Your task to perform on an android device: Show me popular videos on Youtube Image 0: 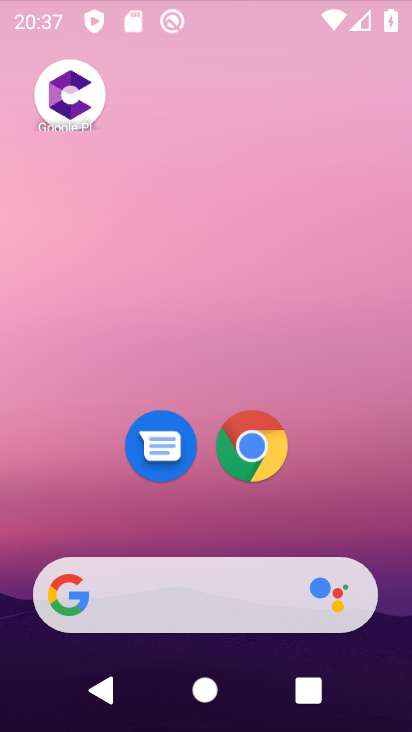
Step 0: drag from (340, 450) to (299, 77)
Your task to perform on an android device: Show me popular videos on Youtube Image 1: 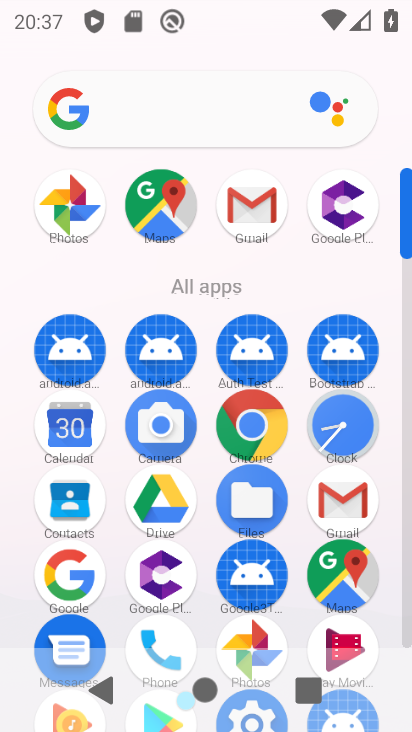
Step 1: click (336, 566)
Your task to perform on an android device: Show me popular videos on Youtube Image 2: 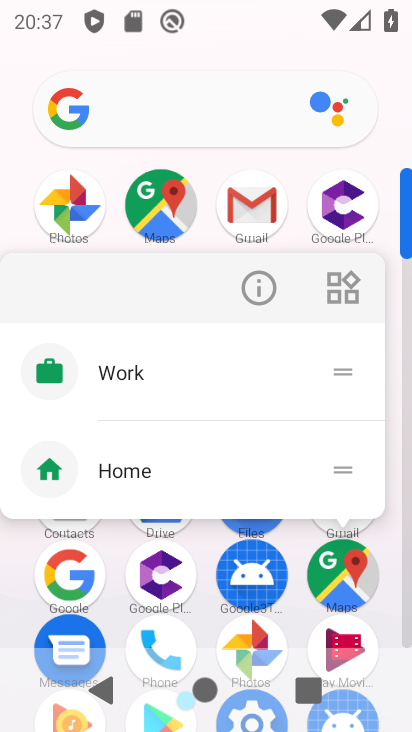
Step 2: click (334, 562)
Your task to perform on an android device: Show me popular videos on Youtube Image 3: 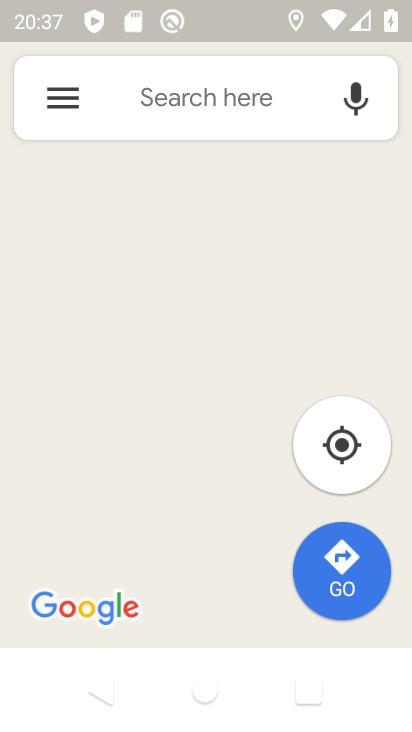
Step 3: press home button
Your task to perform on an android device: Show me popular videos on Youtube Image 4: 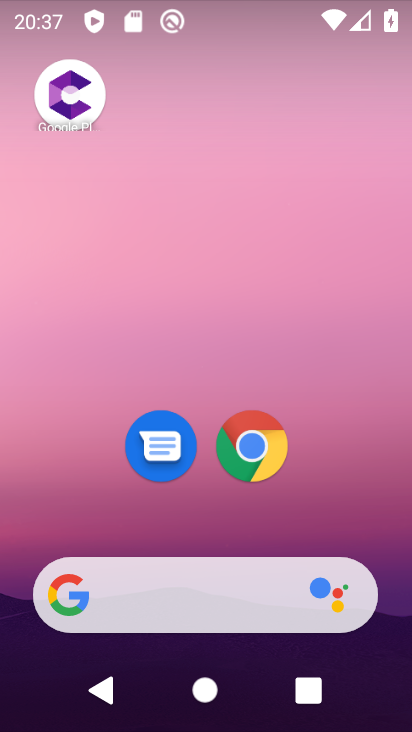
Step 4: drag from (323, 528) to (273, 57)
Your task to perform on an android device: Show me popular videos on Youtube Image 5: 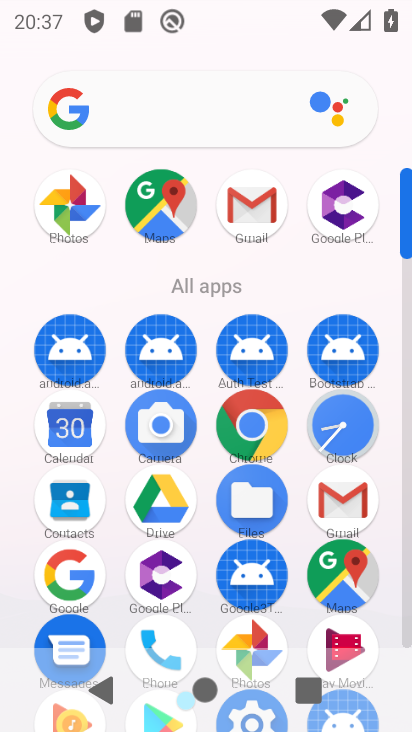
Step 5: drag from (289, 590) to (327, 197)
Your task to perform on an android device: Show me popular videos on Youtube Image 6: 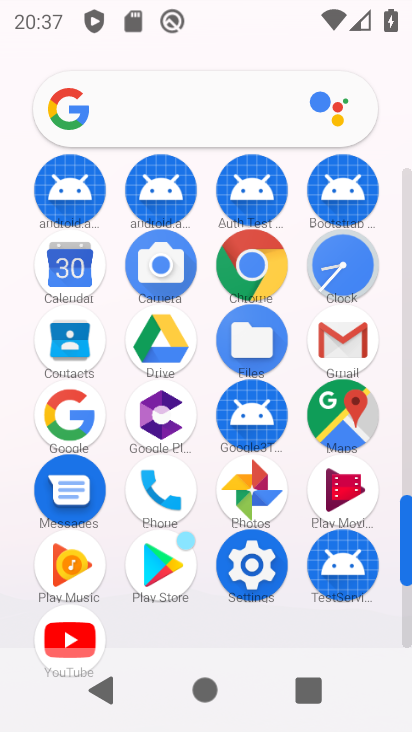
Step 6: click (90, 634)
Your task to perform on an android device: Show me popular videos on Youtube Image 7: 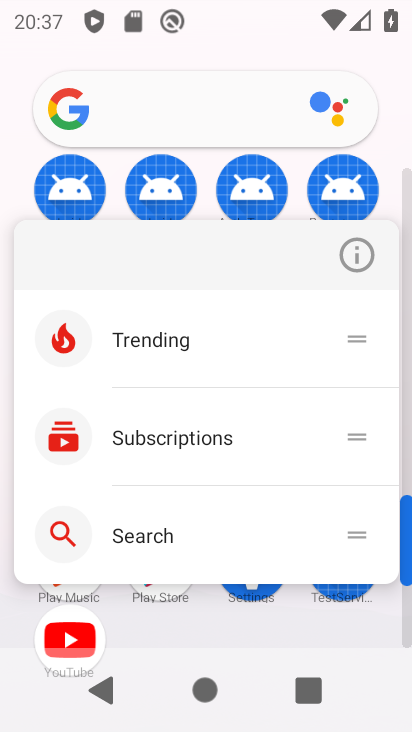
Step 7: click (86, 640)
Your task to perform on an android device: Show me popular videos on Youtube Image 8: 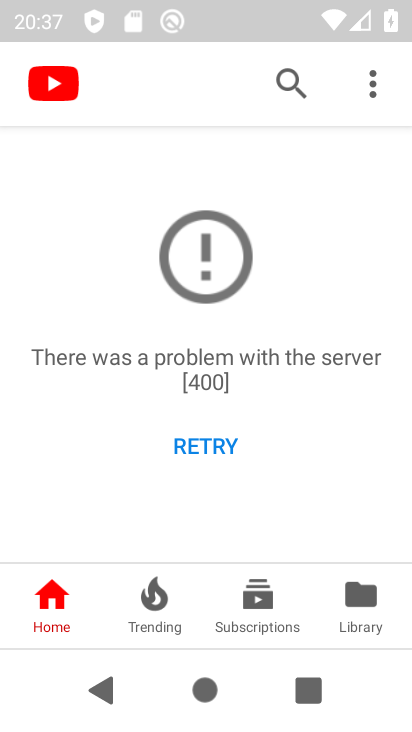
Step 8: click (207, 438)
Your task to perform on an android device: Show me popular videos on Youtube Image 9: 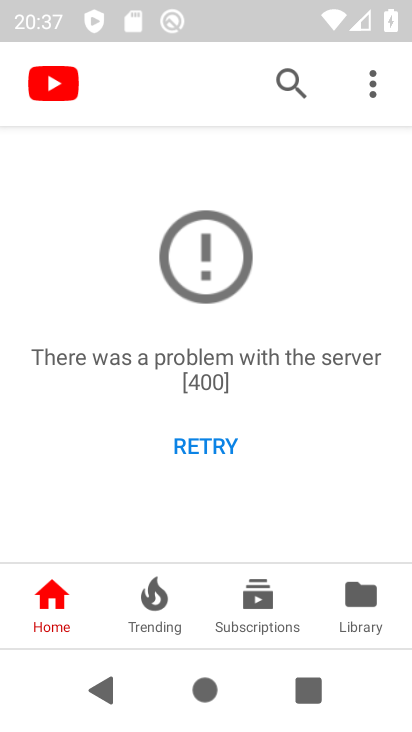
Step 9: task complete